Your task to perform on an android device: turn on data saver in the chrome app Image 0: 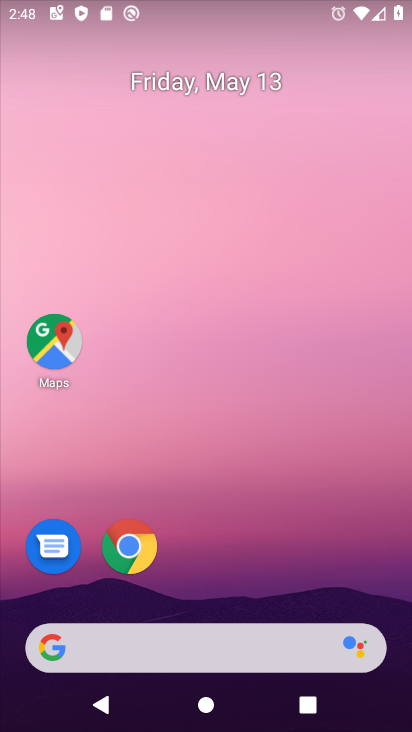
Step 0: drag from (301, 591) to (256, 141)
Your task to perform on an android device: turn on data saver in the chrome app Image 1: 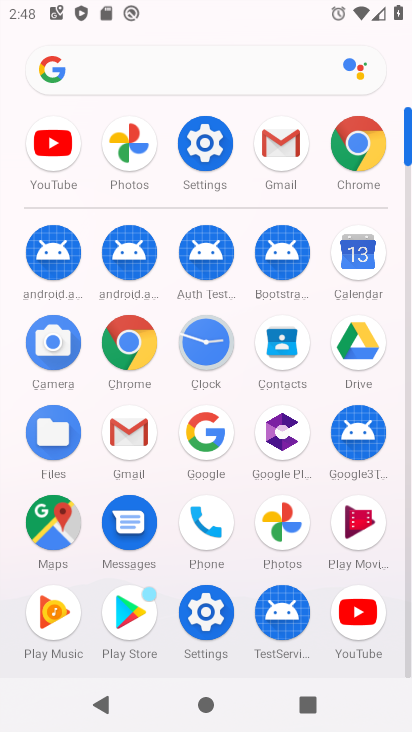
Step 1: click (140, 342)
Your task to perform on an android device: turn on data saver in the chrome app Image 2: 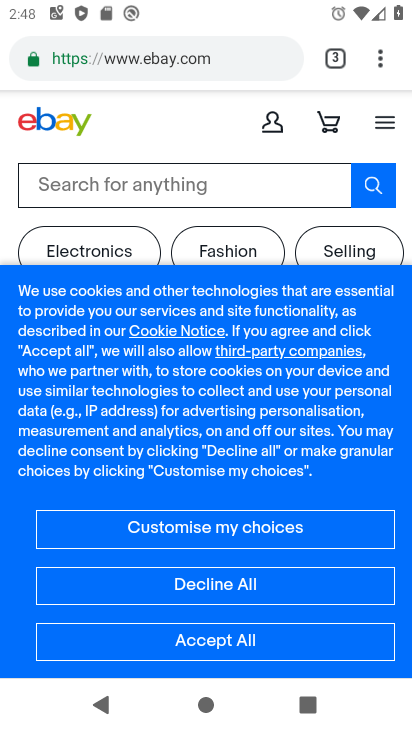
Step 2: drag from (382, 49) to (260, 584)
Your task to perform on an android device: turn on data saver in the chrome app Image 3: 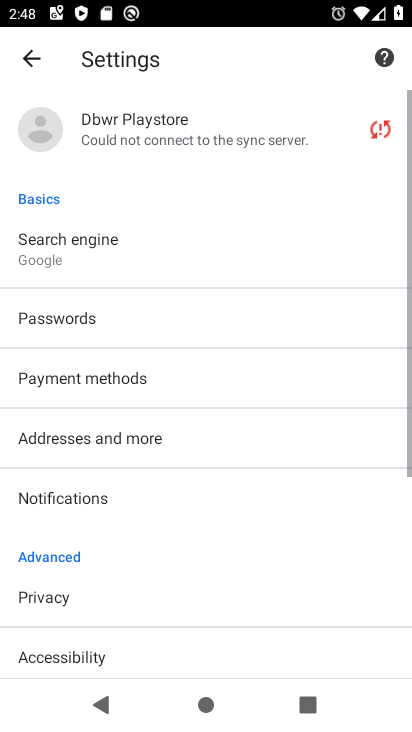
Step 3: drag from (260, 577) to (277, 44)
Your task to perform on an android device: turn on data saver in the chrome app Image 4: 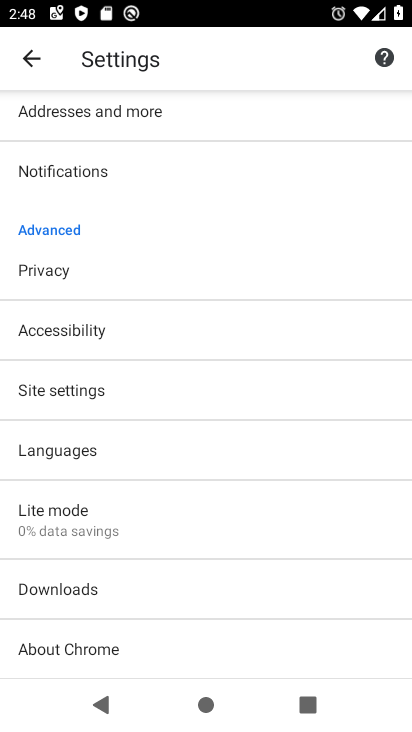
Step 4: click (115, 508)
Your task to perform on an android device: turn on data saver in the chrome app Image 5: 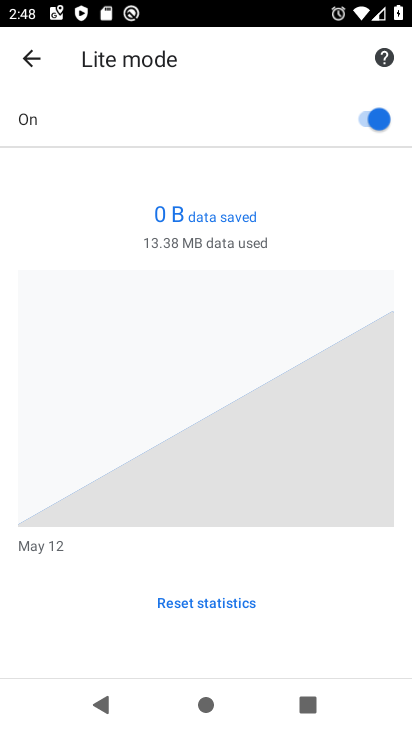
Step 5: task complete